Your task to perform on an android device: turn notification dots off Image 0: 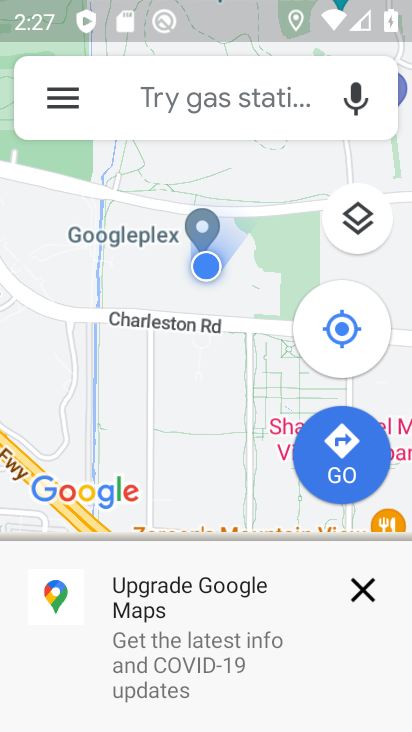
Step 0: press home button
Your task to perform on an android device: turn notification dots off Image 1: 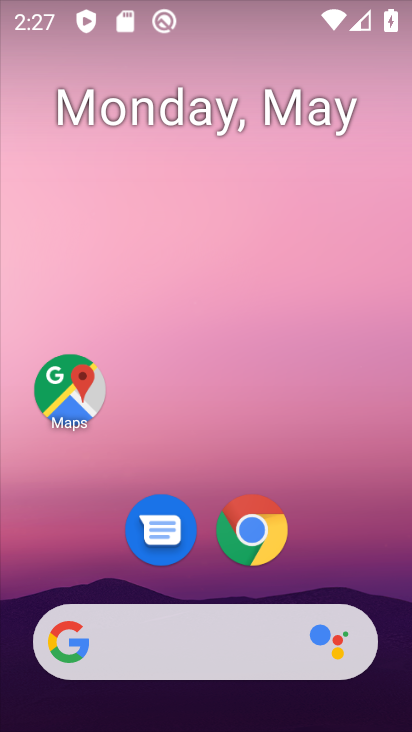
Step 1: drag from (191, 586) to (264, 67)
Your task to perform on an android device: turn notification dots off Image 2: 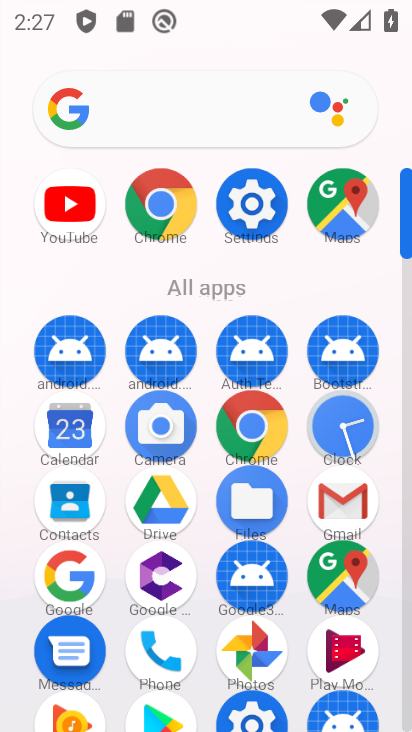
Step 2: click (251, 219)
Your task to perform on an android device: turn notification dots off Image 3: 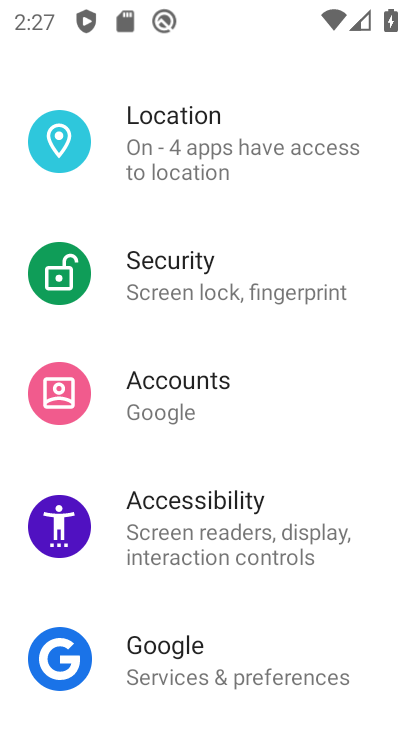
Step 3: drag from (223, 215) to (266, 618)
Your task to perform on an android device: turn notification dots off Image 4: 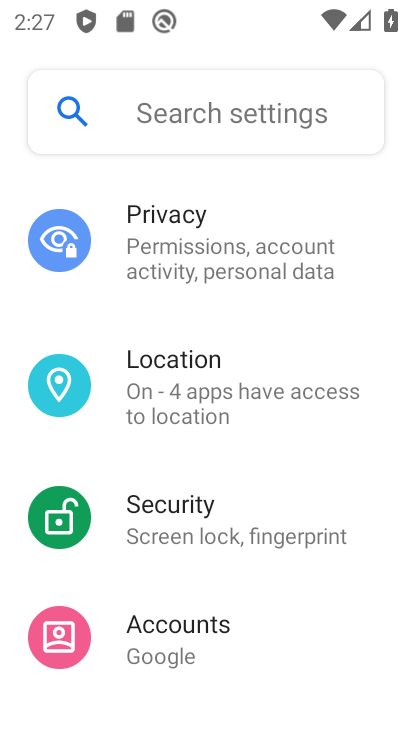
Step 4: drag from (225, 572) to (296, 92)
Your task to perform on an android device: turn notification dots off Image 5: 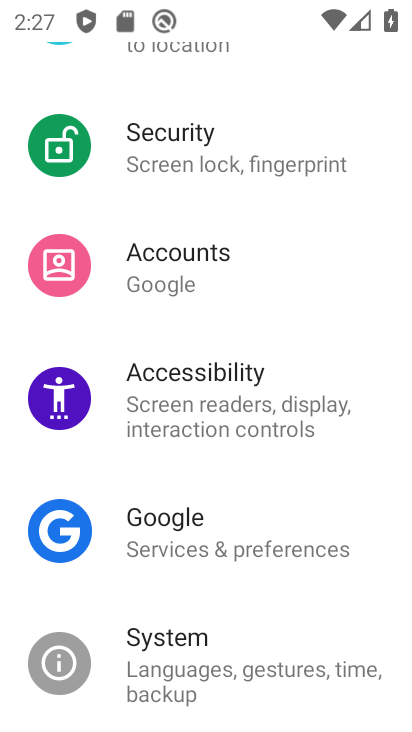
Step 5: drag from (240, 466) to (273, 253)
Your task to perform on an android device: turn notification dots off Image 6: 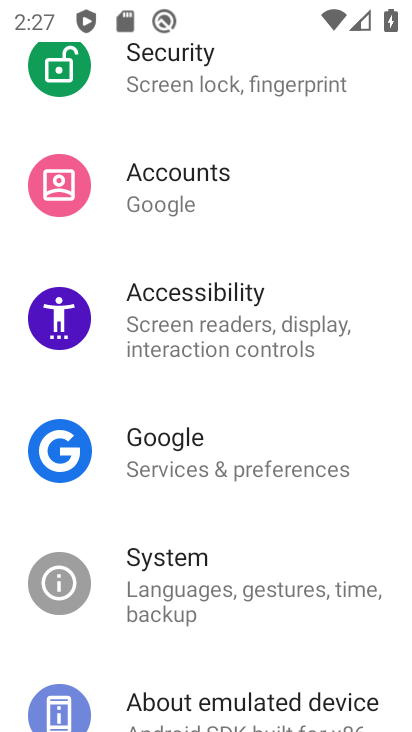
Step 6: drag from (184, 162) to (230, 723)
Your task to perform on an android device: turn notification dots off Image 7: 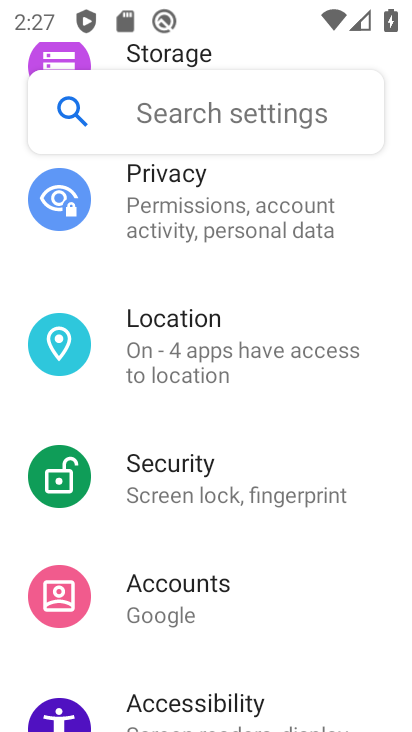
Step 7: drag from (214, 231) to (215, 687)
Your task to perform on an android device: turn notification dots off Image 8: 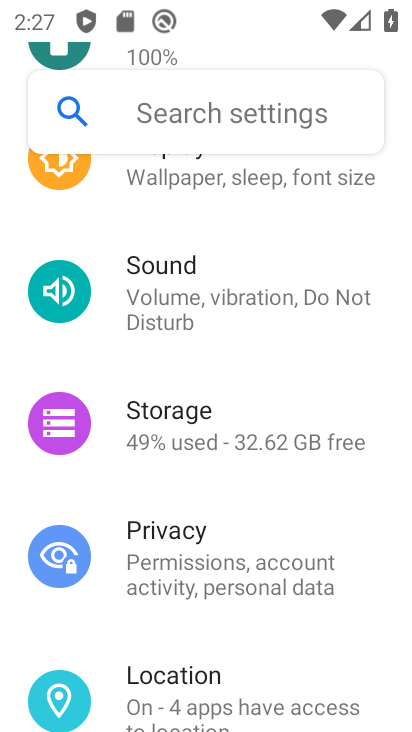
Step 8: drag from (206, 299) to (205, 731)
Your task to perform on an android device: turn notification dots off Image 9: 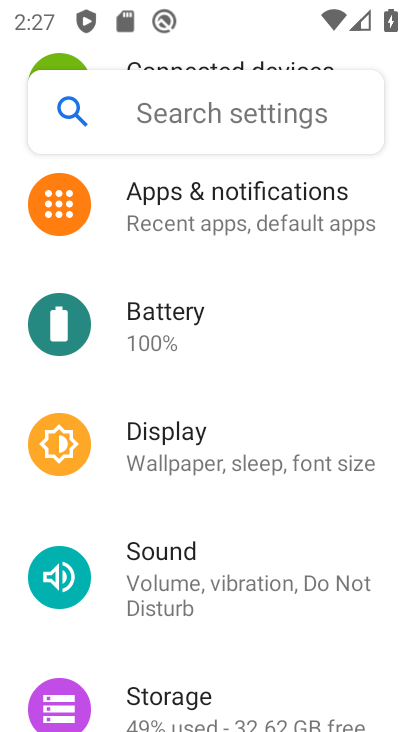
Step 9: click (209, 211)
Your task to perform on an android device: turn notification dots off Image 10: 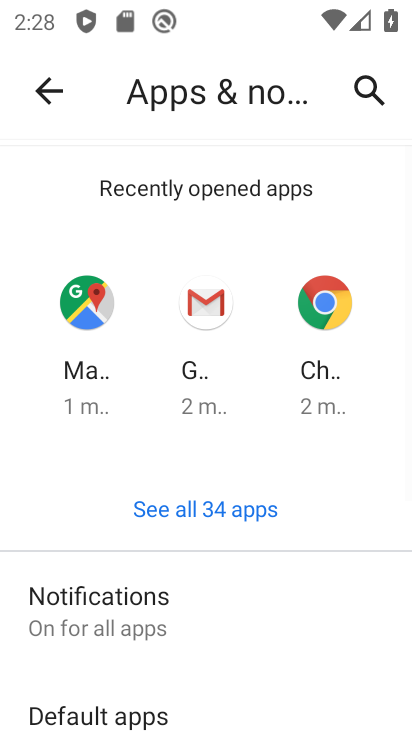
Step 10: drag from (135, 637) to (201, 264)
Your task to perform on an android device: turn notification dots off Image 11: 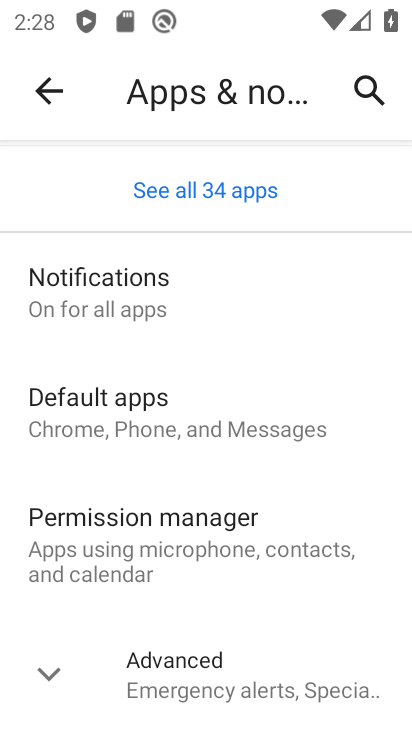
Step 11: click (169, 286)
Your task to perform on an android device: turn notification dots off Image 12: 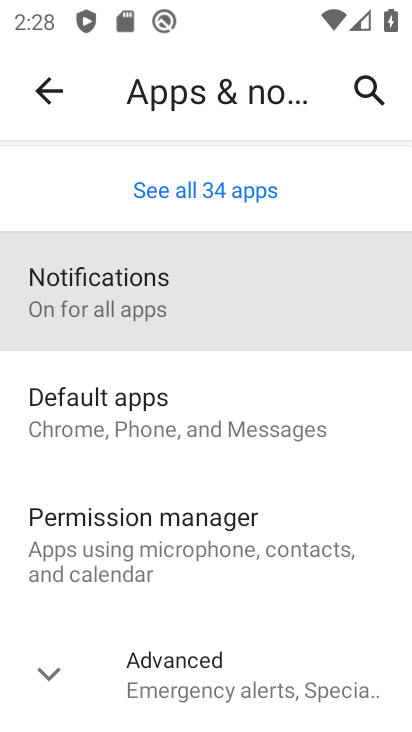
Step 12: drag from (208, 585) to (279, 132)
Your task to perform on an android device: turn notification dots off Image 13: 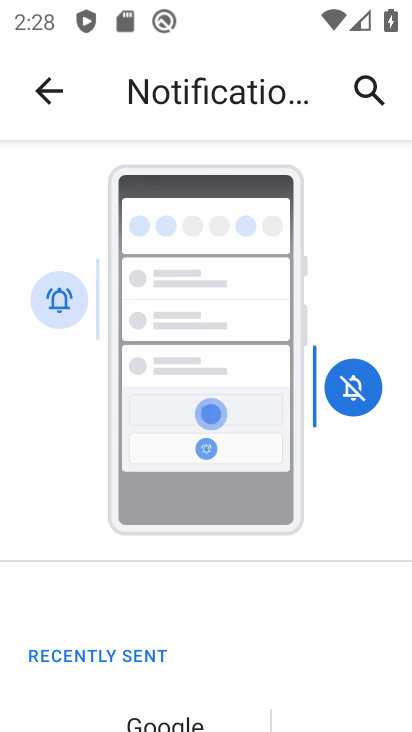
Step 13: drag from (203, 527) to (266, 146)
Your task to perform on an android device: turn notification dots off Image 14: 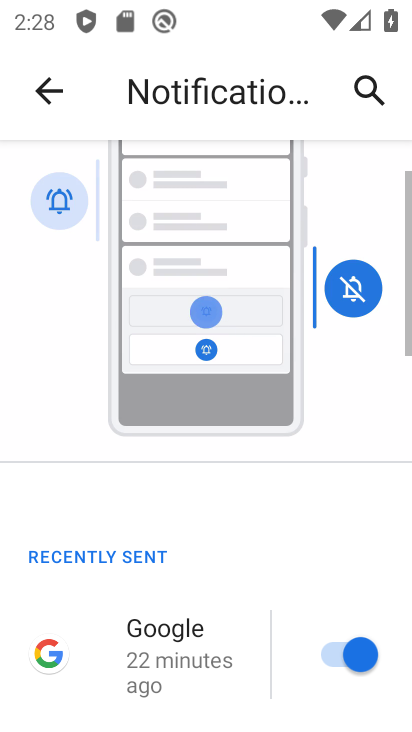
Step 14: drag from (167, 661) to (242, 233)
Your task to perform on an android device: turn notification dots off Image 15: 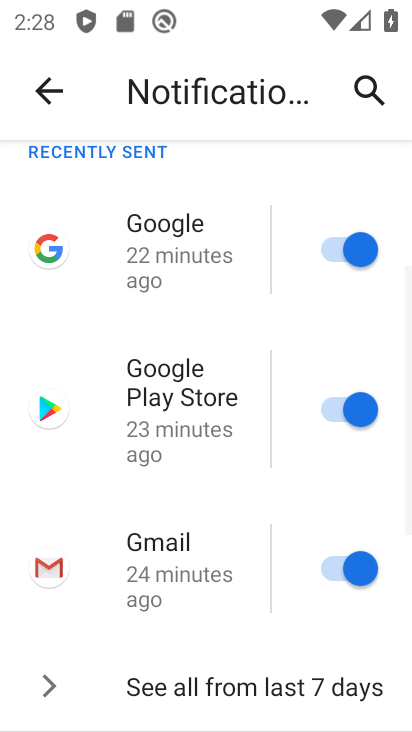
Step 15: drag from (190, 638) to (184, 133)
Your task to perform on an android device: turn notification dots off Image 16: 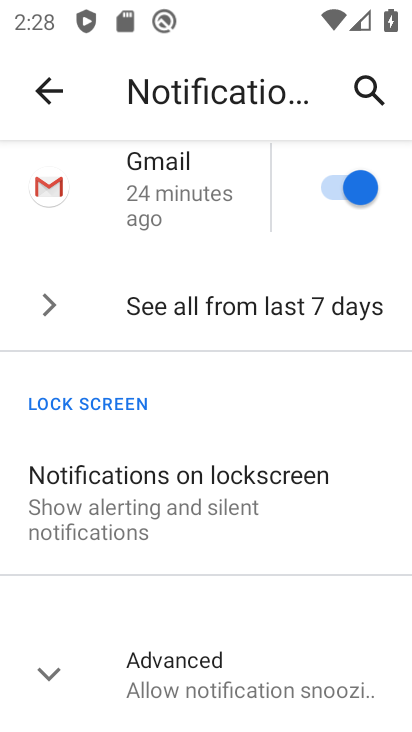
Step 16: click (180, 676)
Your task to perform on an android device: turn notification dots off Image 17: 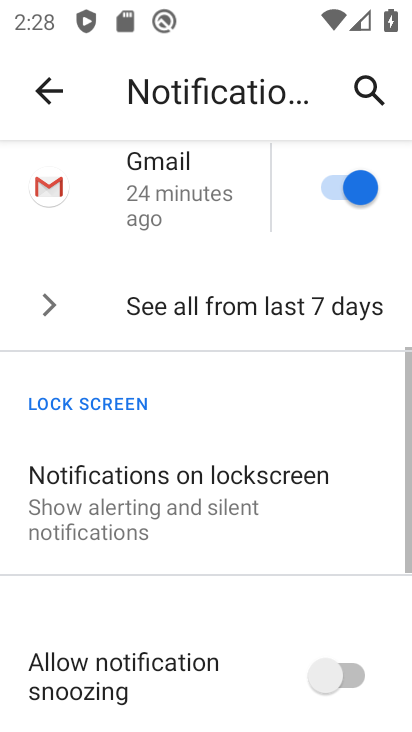
Step 17: task complete